Your task to perform on an android device: Open the map Image 0: 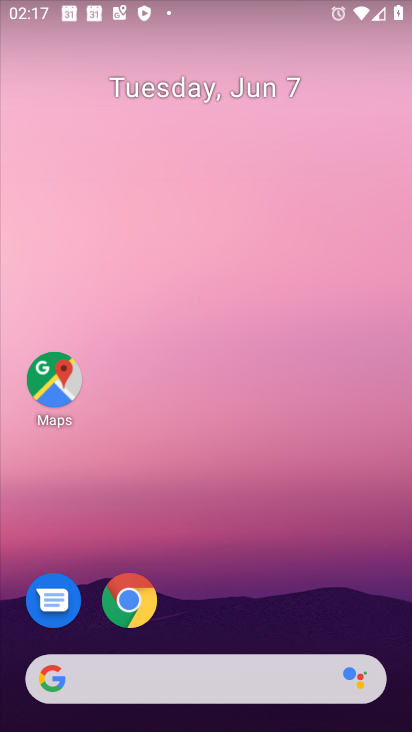
Step 0: drag from (226, 724) to (220, 90)
Your task to perform on an android device: Open the map Image 1: 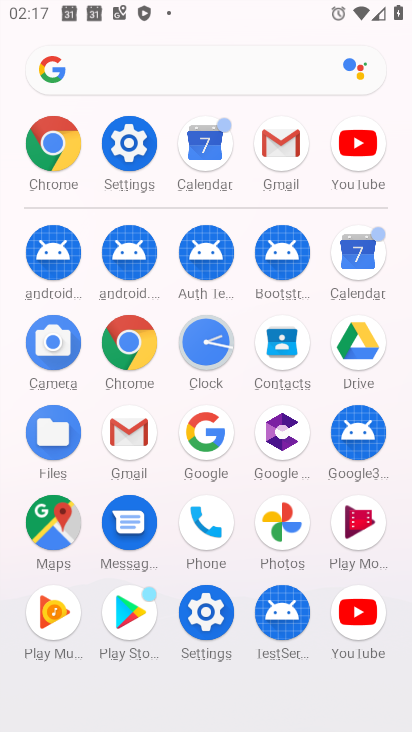
Step 1: click (51, 510)
Your task to perform on an android device: Open the map Image 2: 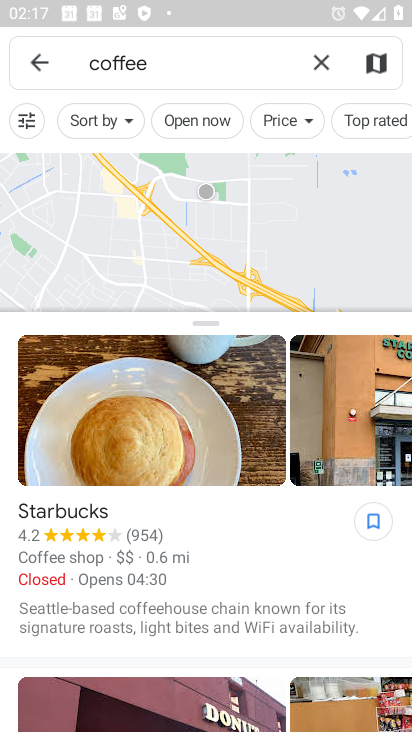
Step 2: task complete